Your task to perform on an android device: set default search engine in the chrome app Image 0: 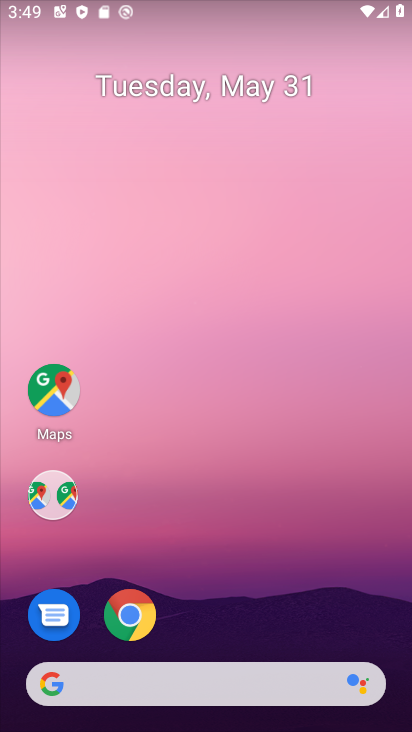
Step 0: drag from (337, 711) to (307, 193)
Your task to perform on an android device: set default search engine in the chrome app Image 1: 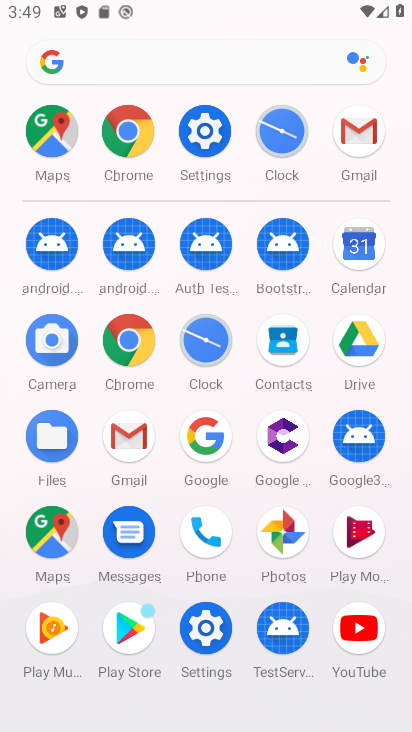
Step 1: click (128, 133)
Your task to perform on an android device: set default search engine in the chrome app Image 2: 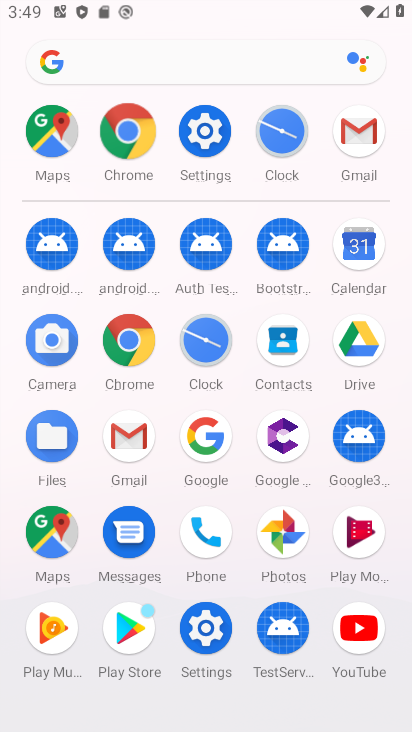
Step 2: click (128, 133)
Your task to perform on an android device: set default search engine in the chrome app Image 3: 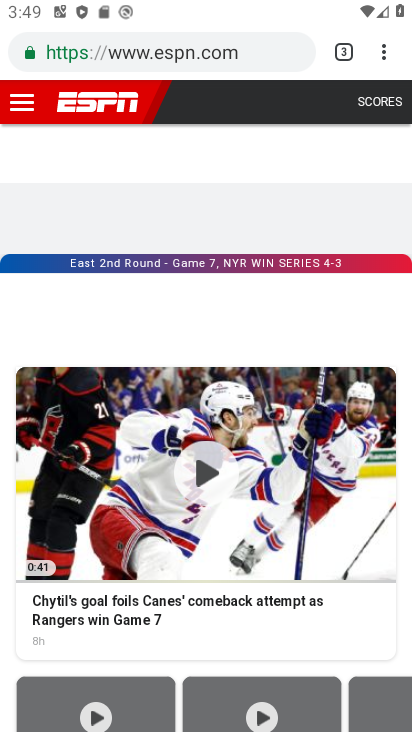
Step 3: drag from (383, 52) to (200, 629)
Your task to perform on an android device: set default search engine in the chrome app Image 4: 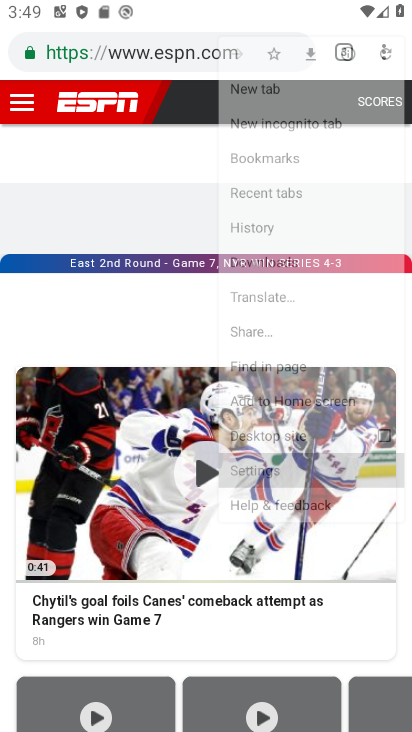
Step 4: click (200, 629)
Your task to perform on an android device: set default search engine in the chrome app Image 5: 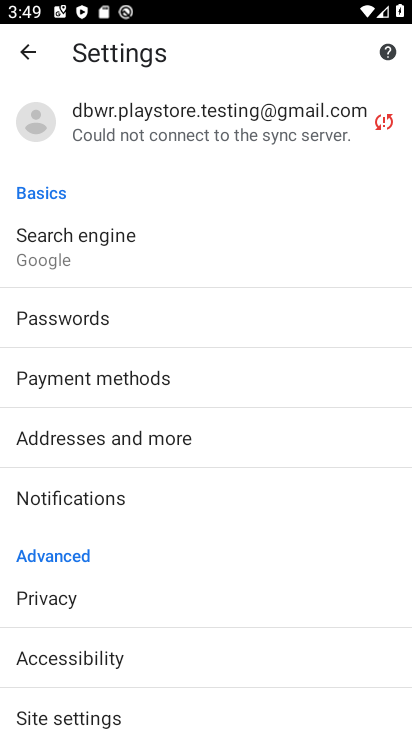
Step 5: click (48, 243)
Your task to perform on an android device: set default search engine in the chrome app Image 6: 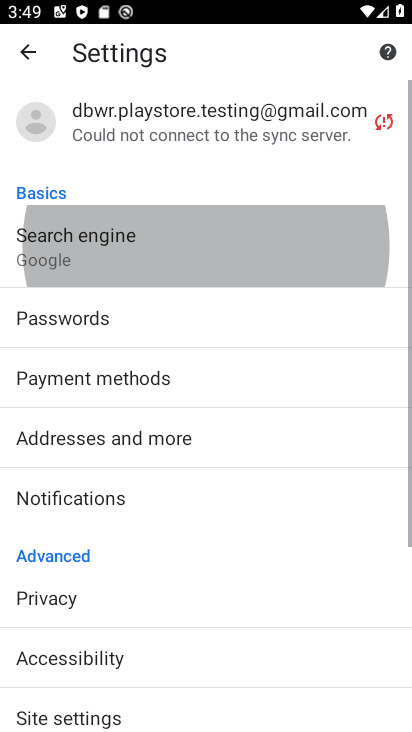
Step 6: click (46, 244)
Your task to perform on an android device: set default search engine in the chrome app Image 7: 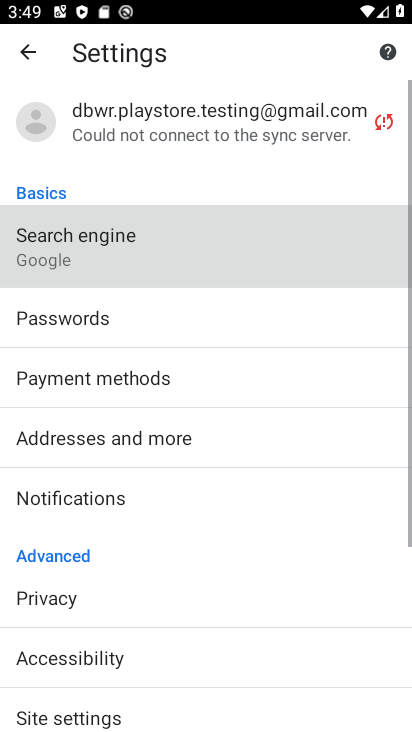
Step 7: click (45, 245)
Your task to perform on an android device: set default search engine in the chrome app Image 8: 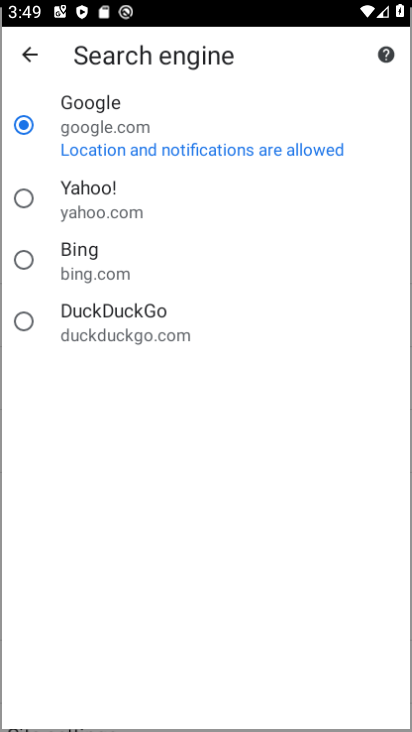
Step 8: click (45, 245)
Your task to perform on an android device: set default search engine in the chrome app Image 9: 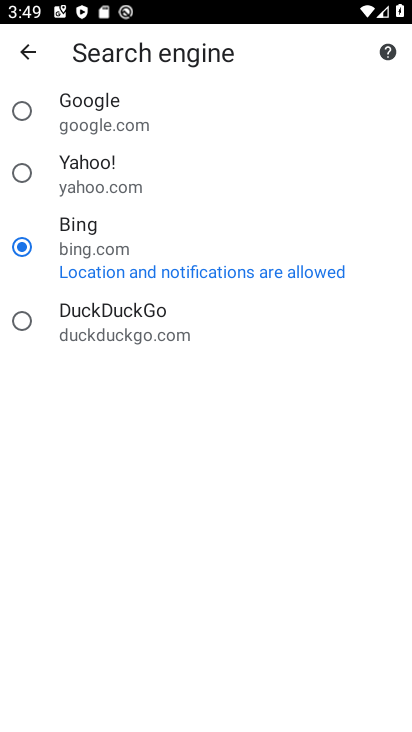
Step 9: click (24, 199)
Your task to perform on an android device: set default search engine in the chrome app Image 10: 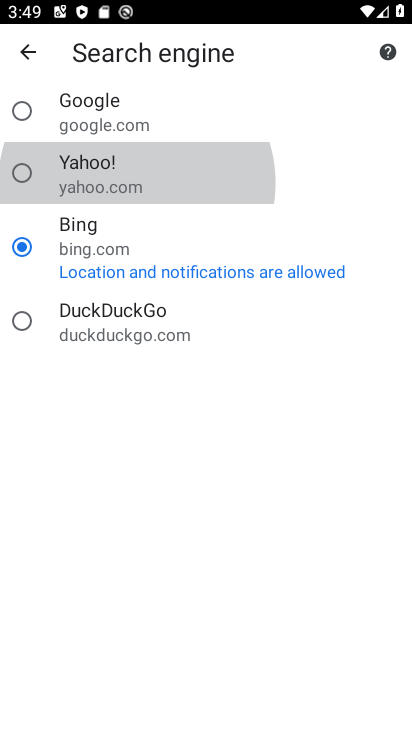
Step 10: click (24, 199)
Your task to perform on an android device: set default search engine in the chrome app Image 11: 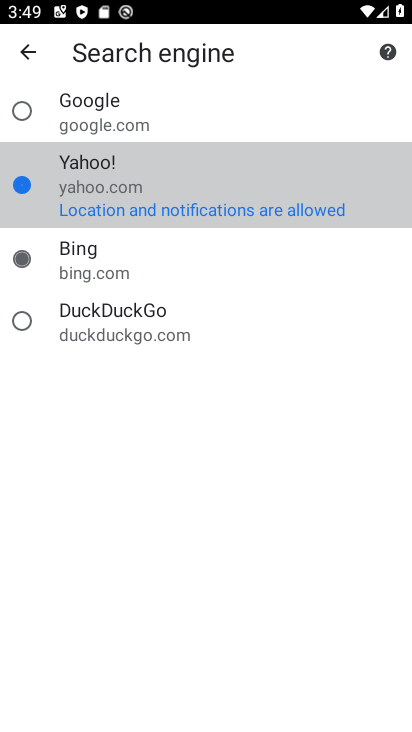
Step 11: click (26, 198)
Your task to perform on an android device: set default search engine in the chrome app Image 12: 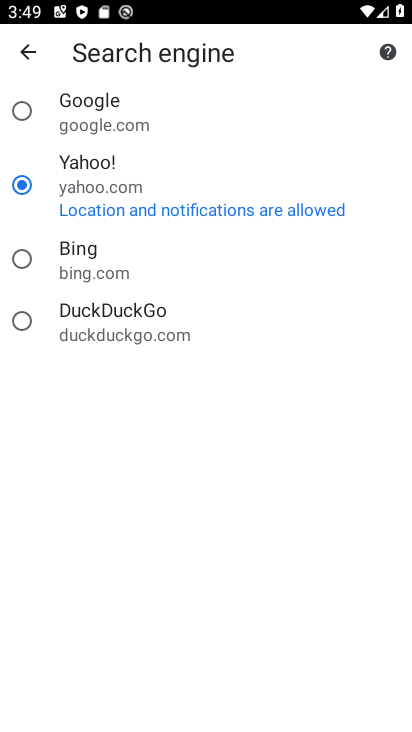
Step 12: task complete